Your task to perform on an android device: Open the calendar app, open the side menu, and click the "Day" option Image 0: 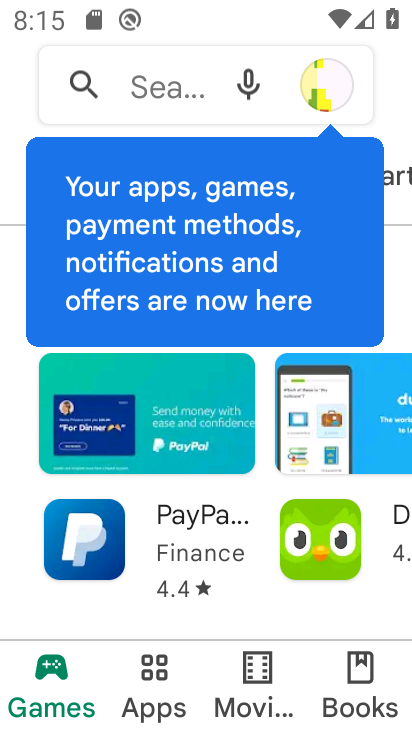
Step 0: press home button
Your task to perform on an android device: Open the calendar app, open the side menu, and click the "Day" option Image 1: 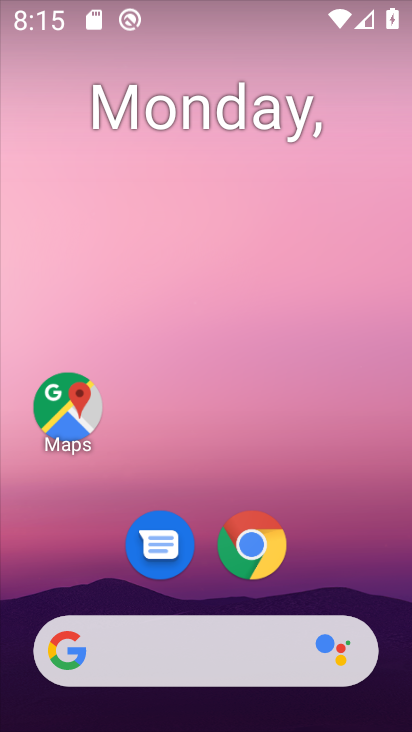
Step 1: drag from (299, 497) to (141, 11)
Your task to perform on an android device: Open the calendar app, open the side menu, and click the "Day" option Image 2: 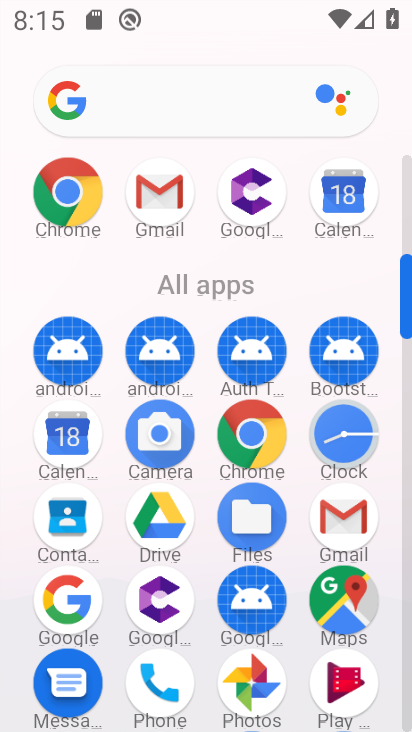
Step 2: click (71, 436)
Your task to perform on an android device: Open the calendar app, open the side menu, and click the "Day" option Image 3: 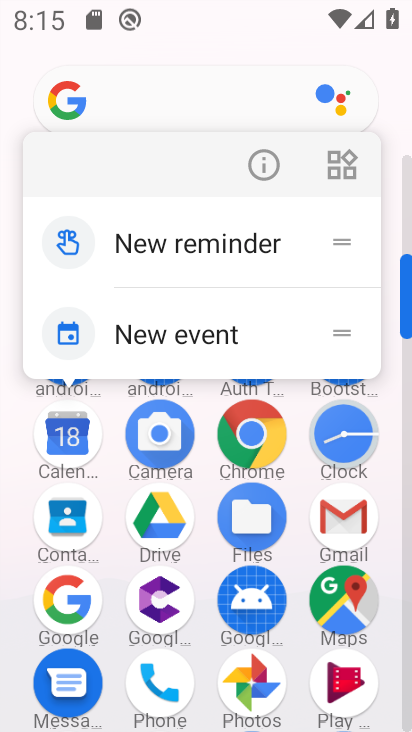
Step 3: click (71, 436)
Your task to perform on an android device: Open the calendar app, open the side menu, and click the "Day" option Image 4: 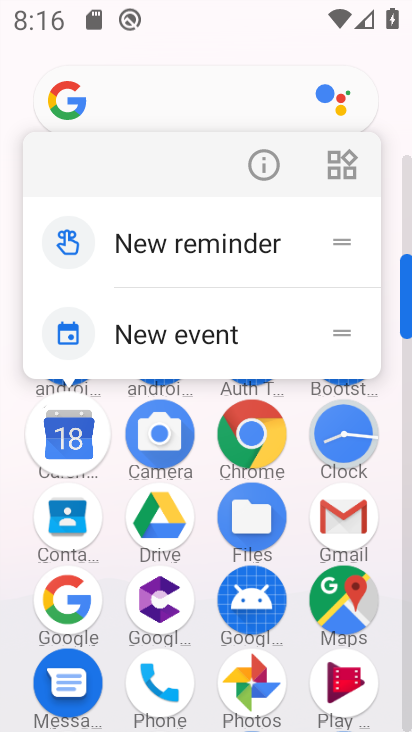
Step 4: click (71, 436)
Your task to perform on an android device: Open the calendar app, open the side menu, and click the "Day" option Image 5: 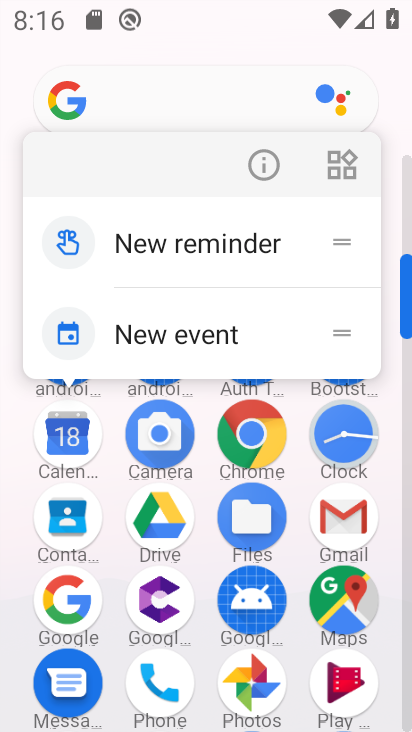
Step 5: click (55, 436)
Your task to perform on an android device: Open the calendar app, open the side menu, and click the "Day" option Image 6: 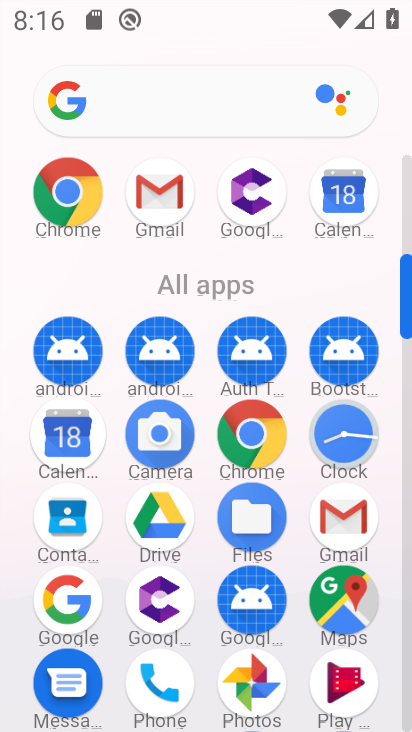
Step 6: click (55, 436)
Your task to perform on an android device: Open the calendar app, open the side menu, and click the "Day" option Image 7: 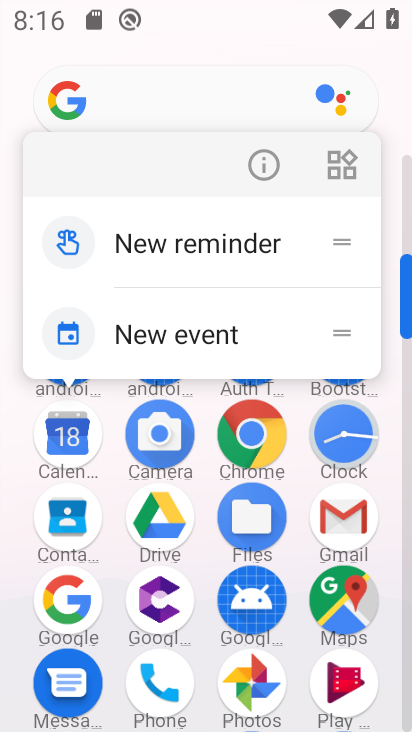
Step 7: click (70, 436)
Your task to perform on an android device: Open the calendar app, open the side menu, and click the "Day" option Image 8: 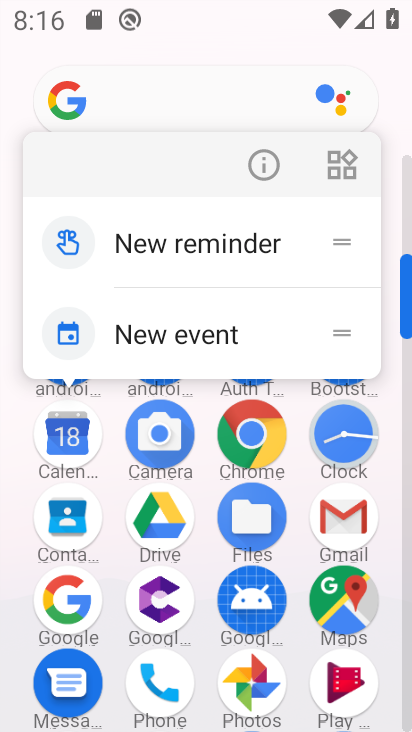
Step 8: click (59, 439)
Your task to perform on an android device: Open the calendar app, open the side menu, and click the "Day" option Image 9: 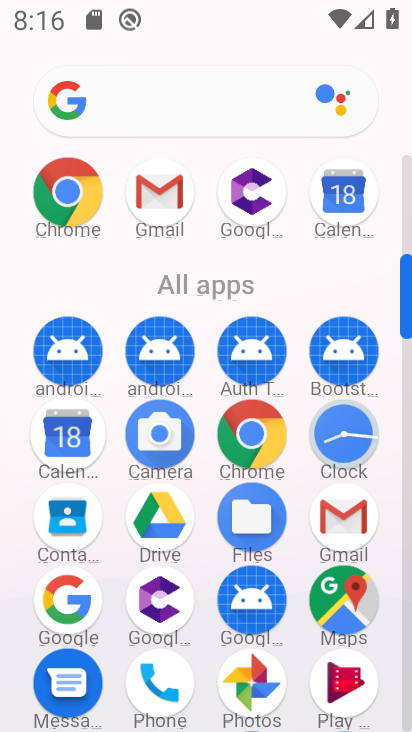
Step 9: click (59, 439)
Your task to perform on an android device: Open the calendar app, open the side menu, and click the "Day" option Image 10: 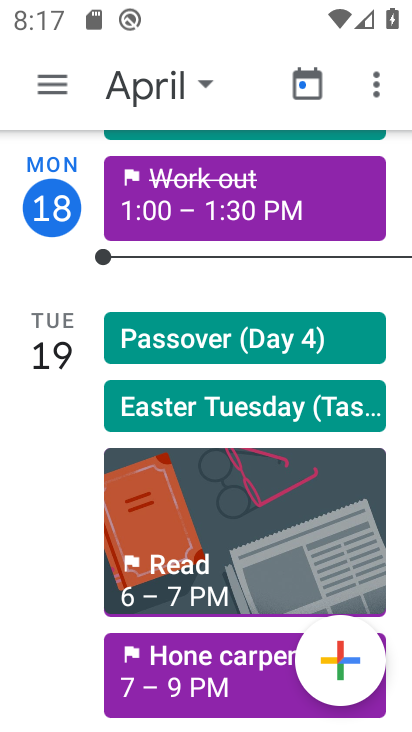
Step 10: click (52, 87)
Your task to perform on an android device: Open the calendar app, open the side menu, and click the "Day" option Image 11: 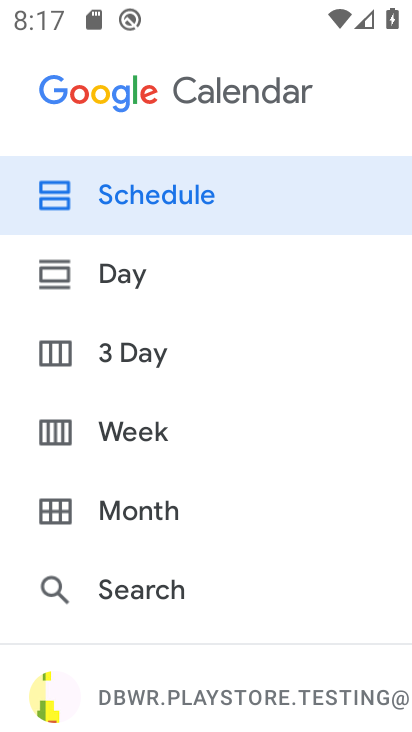
Step 11: click (118, 271)
Your task to perform on an android device: Open the calendar app, open the side menu, and click the "Day" option Image 12: 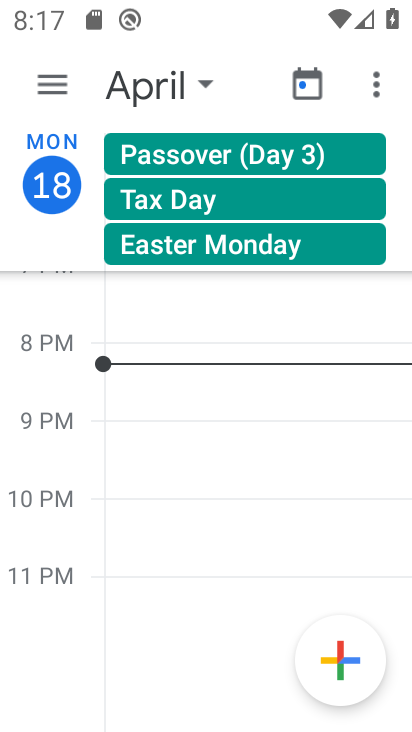
Step 12: task complete